Your task to perform on an android device: turn off notifications settings in the gmail app Image 0: 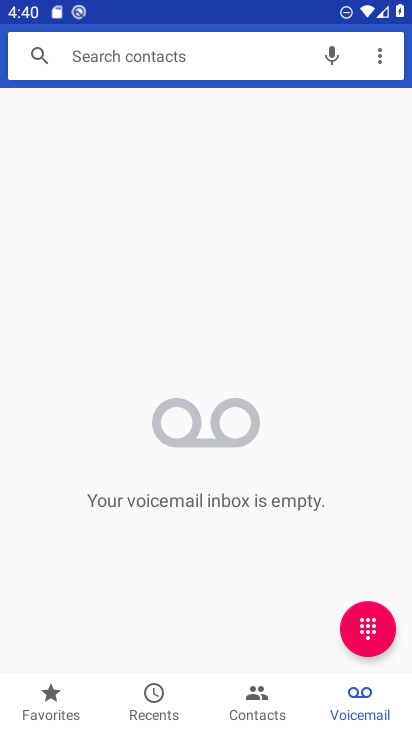
Step 0: click (120, 593)
Your task to perform on an android device: turn off notifications settings in the gmail app Image 1: 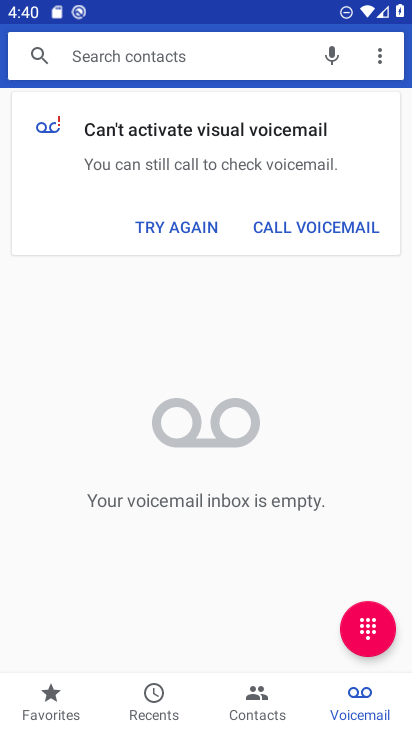
Step 1: press home button
Your task to perform on an android device: turn off notifications settings in the gmail app Image 2: 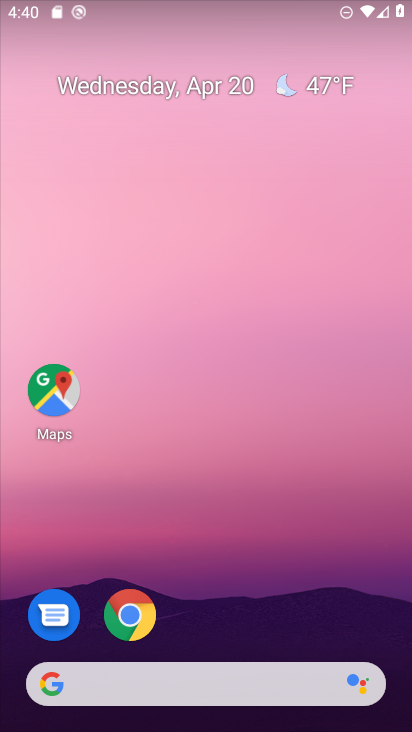
Step 2: drag from (267, 637) to (226, 43)
Your task to perform on an android device: turn off notifications settings in the gmail app Image 3: 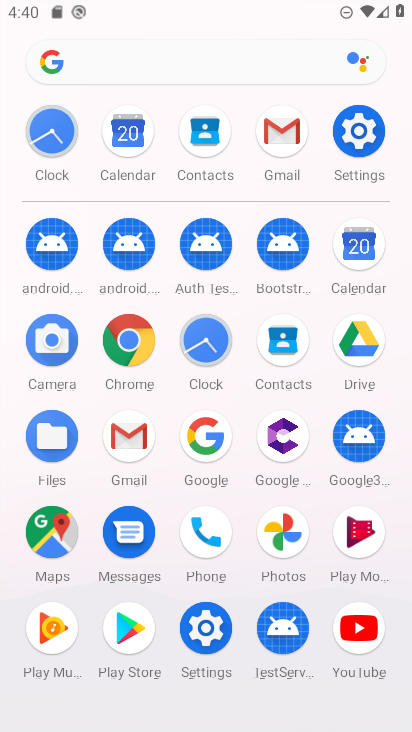
Step 3: click (134, 431)
Your task to perform on an android device: turn off notifications settings in the gmail app Image 4: 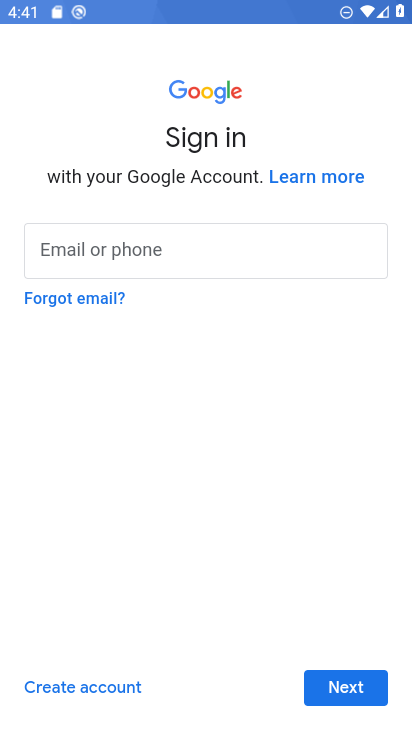
Step 4: task complete